Your task to perform on an android device: Open Google Maps and go to "Timeline" Image 0: 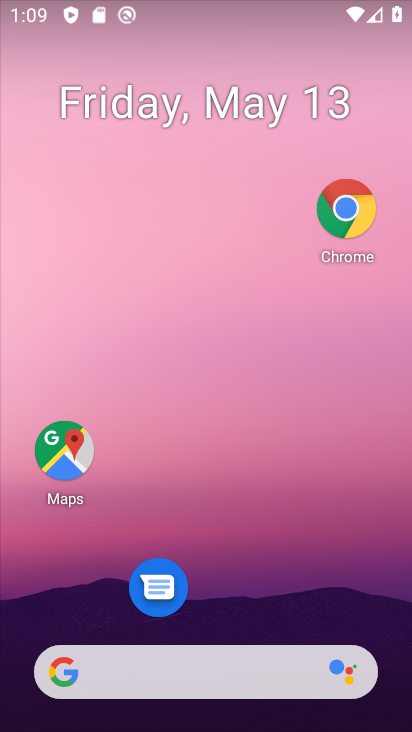
Step 0: click (67, 481)
Your task to perform on an android device: Open Google Maps and go to "Timeline" Image 1: 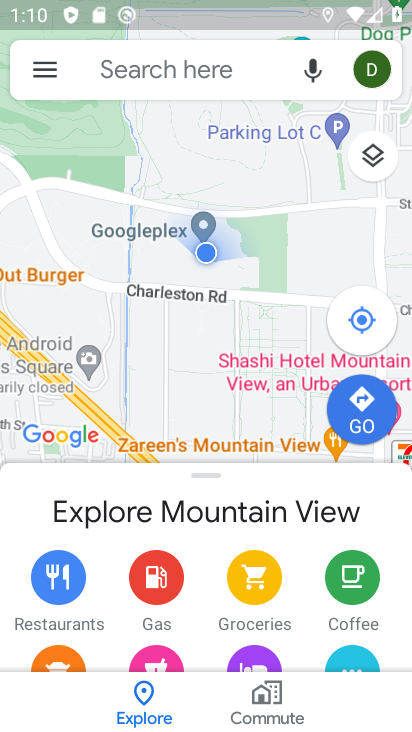
Step 1: click (36, 62)
Your task to perform on an android device: Open Google Maps and go to "Timeline" Image 2: 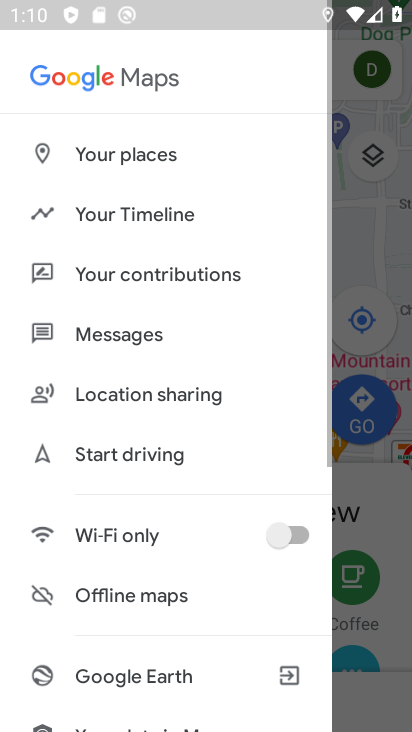
Step 2: click (119, 215)
Your task to perform on an android device: Open Google Maps and go to "Timeline" Image 3: 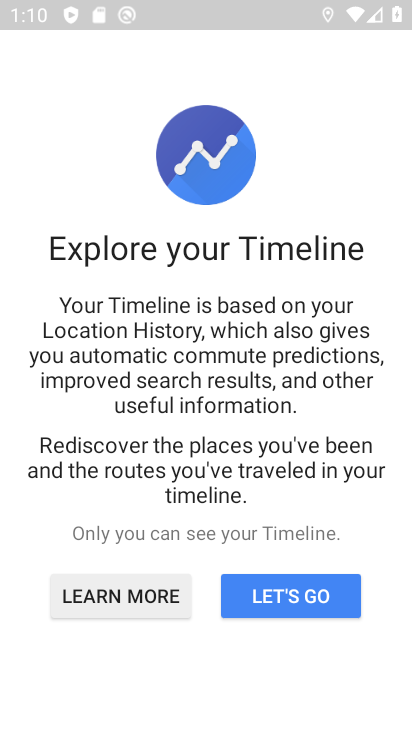
Step 3: click (301, 603)
Your task to perform on an android device: Open Google Maps and go to "Timeline" Image 4: 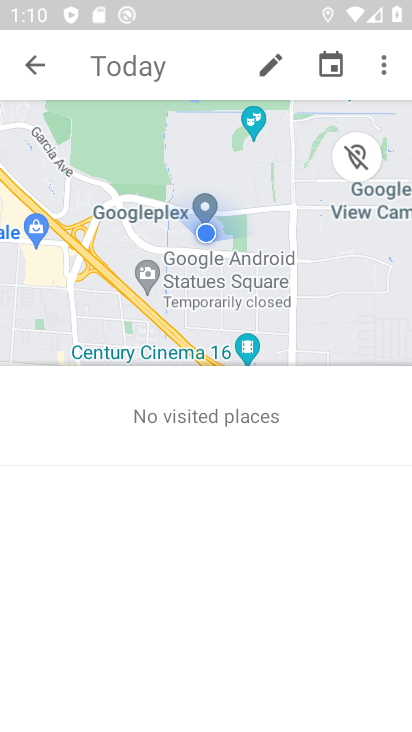
Step 4: task complete